Your task to perform on an android device: Open location settings Image 0: 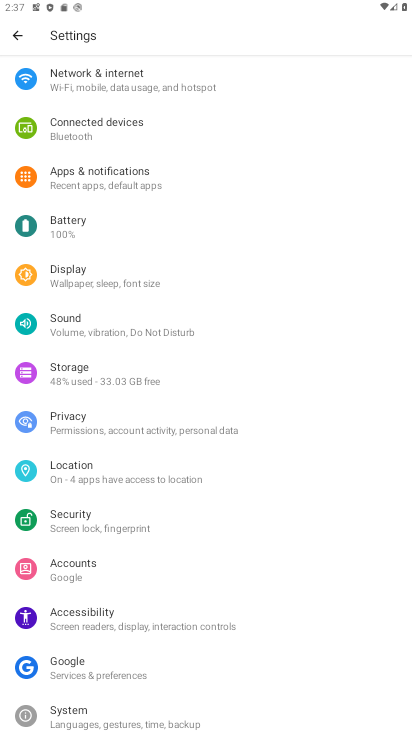
Step 0: click (126, 451)
Your task to perform on an android device: Open location settings Image 1: 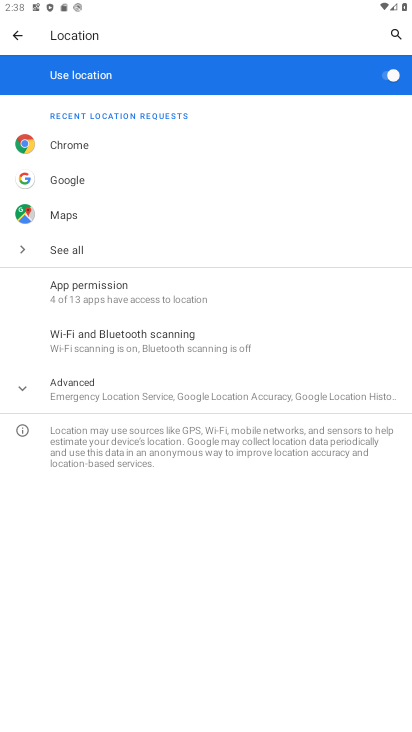
Step 1: task complete